Your task to perform on an android device: turn off location history Image 0: 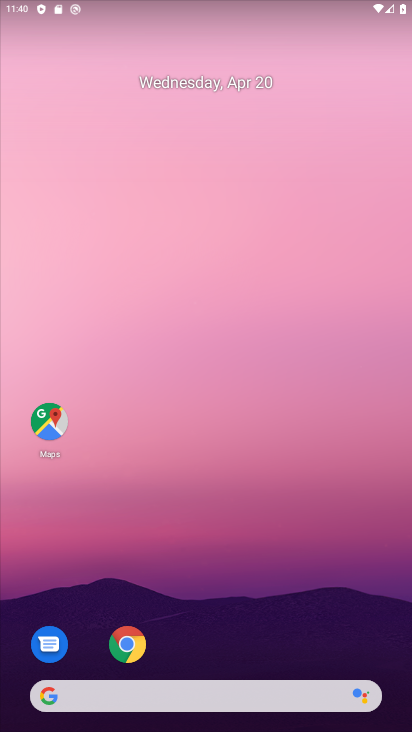
Step 0: click (46, 421)
Your task to perform on an android device: turn off location history Image 1: 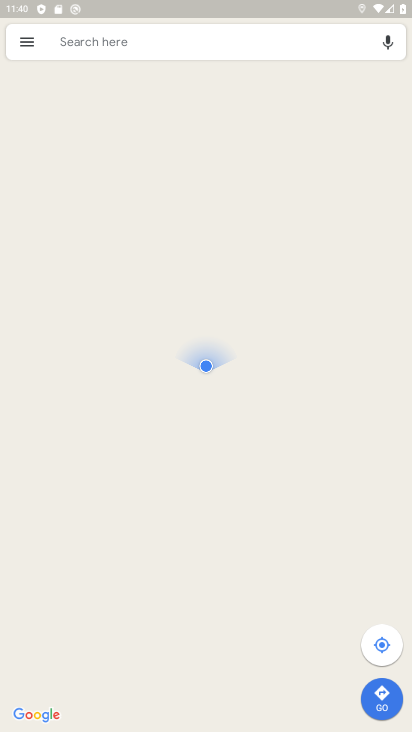
Step 1: click (25, 42)
Your task to perform on an android device: turn off location history Image 2: 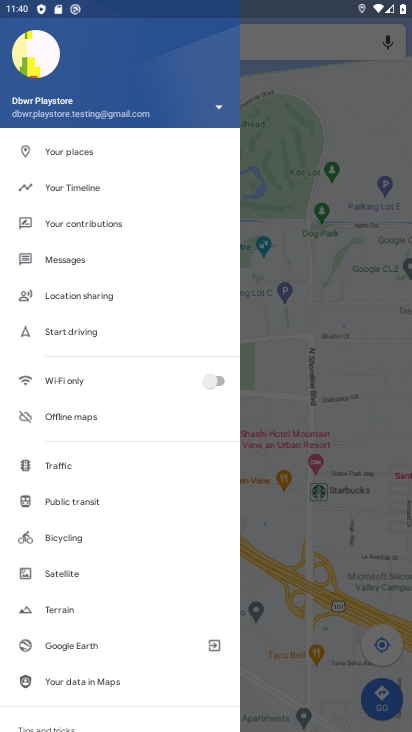
Step 2: drag from (121, 647) to (145, 429)
Your task to perform on an android device: turn off location history Image 3: 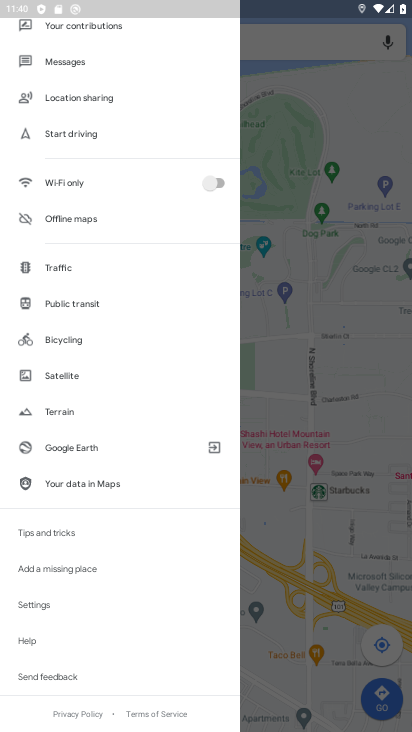
Step 3: click (31, 606)
Your task to perform on an android device: turn off location history Image 4: 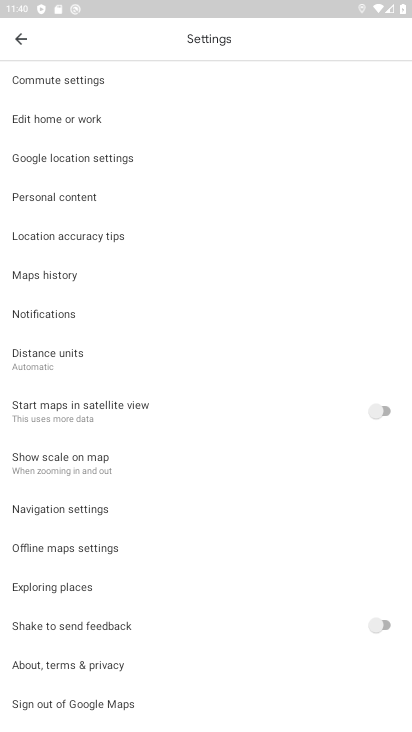
Step 4: click (54, 194)
Your task to perform on an android device: turn off location history Image 5: 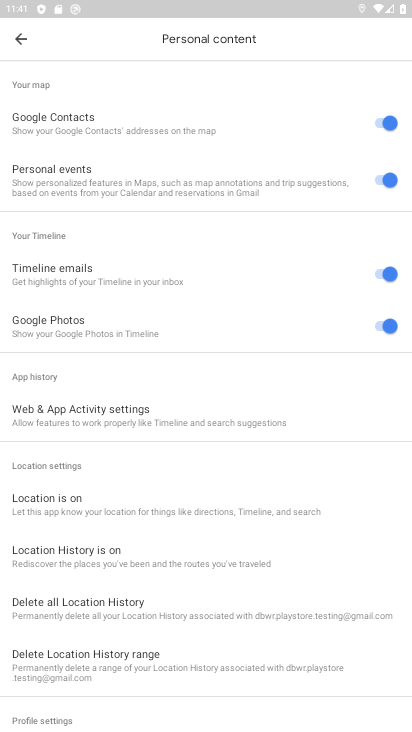
Step 5: click (52, 554)
Your task to perform on an android device: turn off location history Image 6: 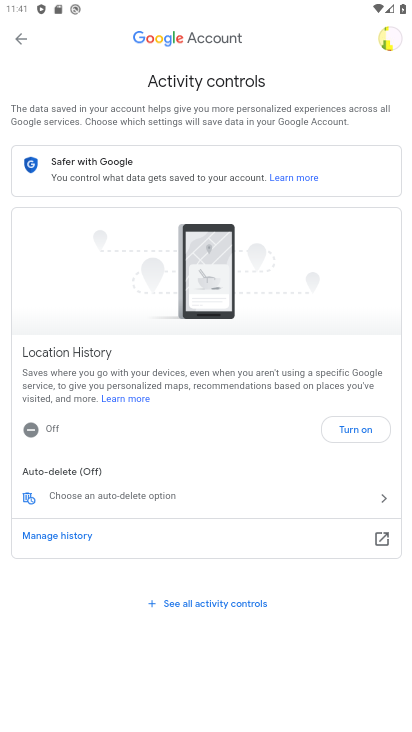
Step 6: task complete